Your task to perform on an android device: turn off location Image 0: 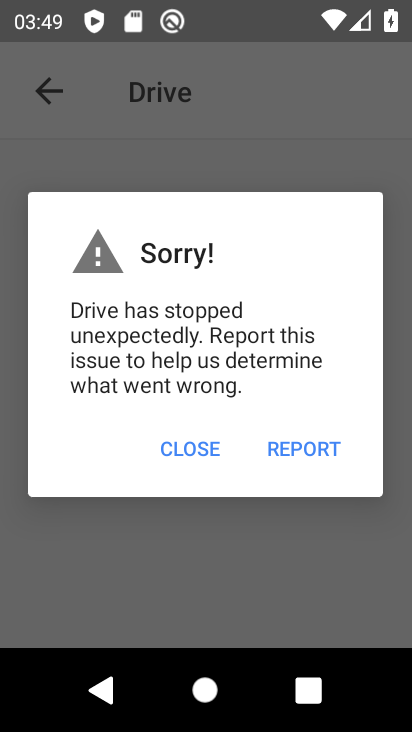
Step 0: press home button
Your task to perform on an android device: turn off location Image 1: 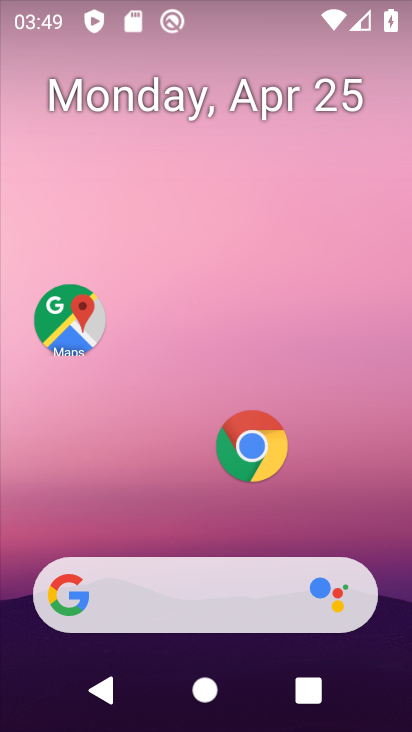
Step 1: drag from (156, 500) to (383, 23)
Your task to perform on an android device: turn off location Image 2: 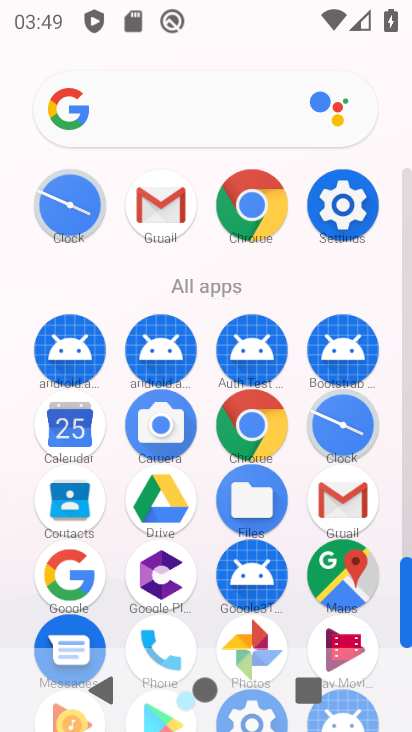
Step 2: click (356, 191)
Your task to perform on an android device: turn off location Image 3: 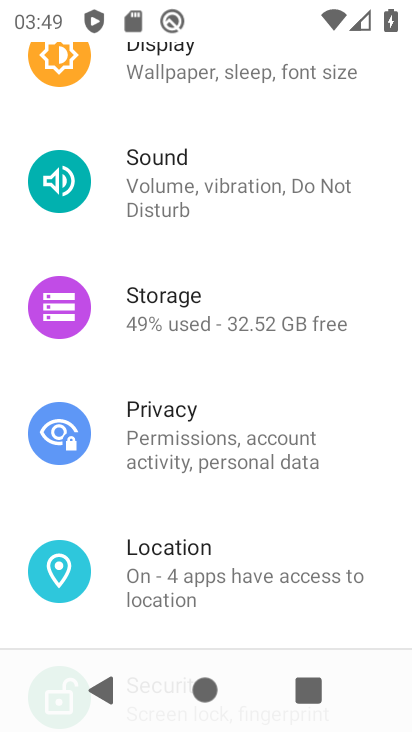
Step 3: click (180, 582)
Your task to perform on an android device: turn off location Image 4: 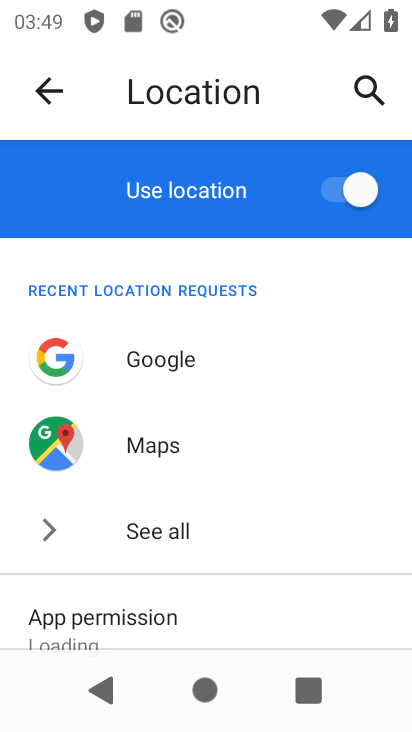
Step 4: click (338, 196)
Your task to perform on an android device: turn off location Image 5: 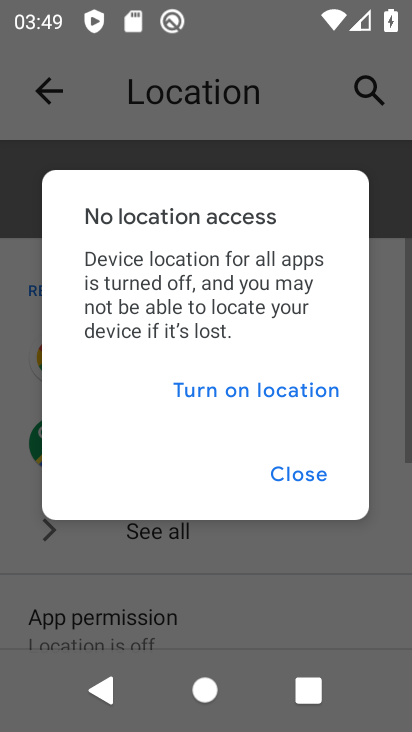
Step 5: task complete